Your task to perform on an android device: make emails show in primary in the gmail app Image 0: 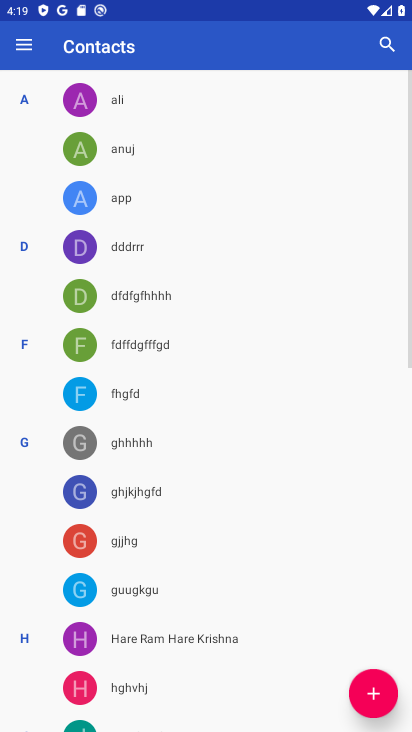
Step 0: press home button
Your task to perform on an android device: make emails show in primary in the gmail app Image 1: 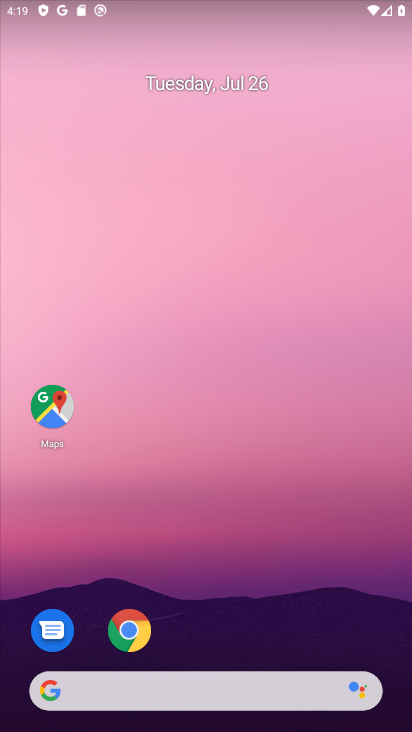
Step 1: drag from (291, 527) to (302, 38)
Your task to perform on an android device: make emails show in primary in the gmail app Image 2: 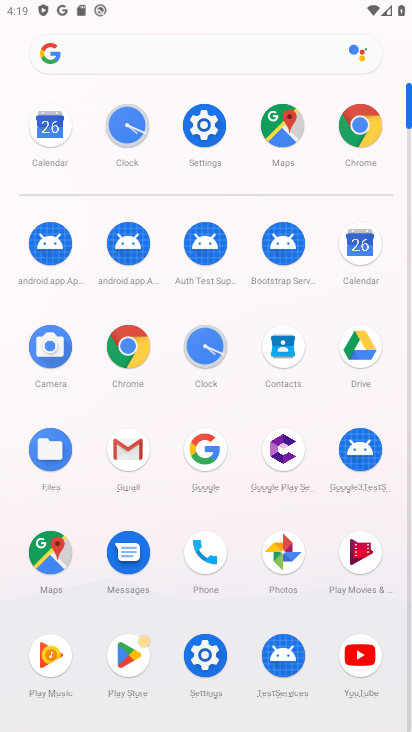
Step 2: click (132, 460)
Your task to perform on an android device: make emails show in primary in the gmail app Image 3: 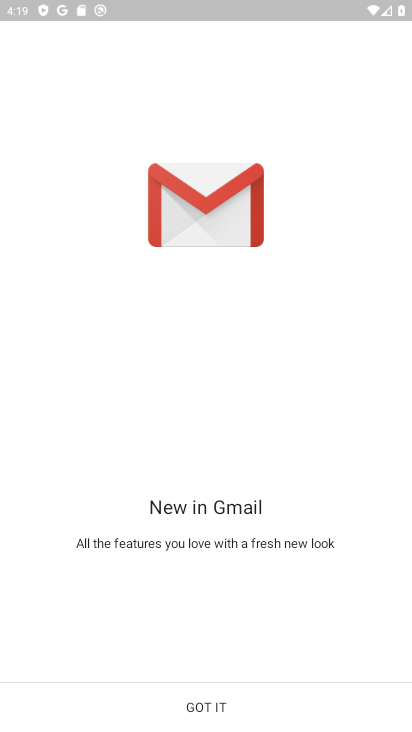
Step 3: click (233, 713)
Your task to perform on an android device: make emails show in primary in the gmail app Image 4: 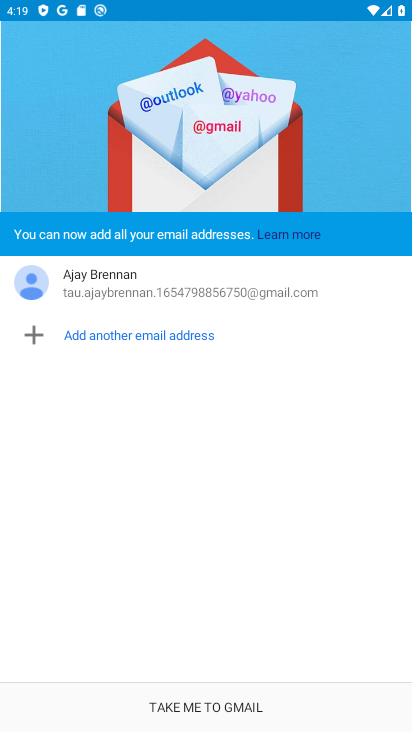
Step 4: click (220, 704)
Your task to perform on an android device: make emails show in primary in the gmail app Image 5: 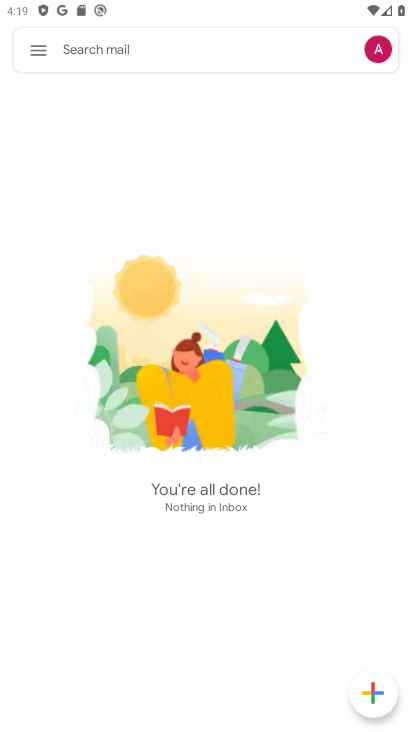
Step 5: click (42, 52)
Your task to perform on an android device: make emails show in primary in the gmail app Image 6: 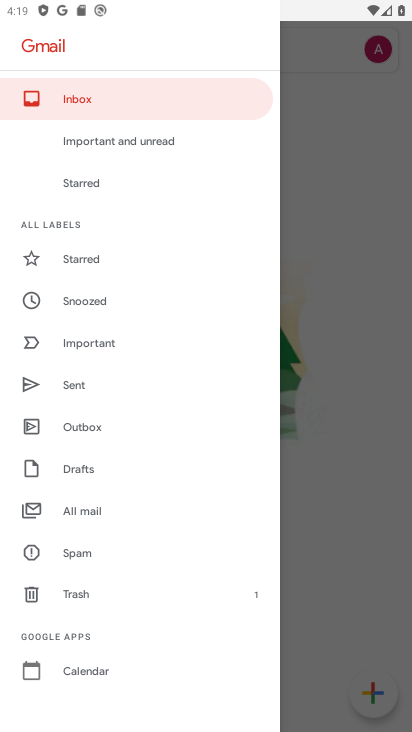
Step 6: drag from (98, 632) to (183, 180)
Your task to perform on an android device: make emails show in primary in the gmail app Image 7: 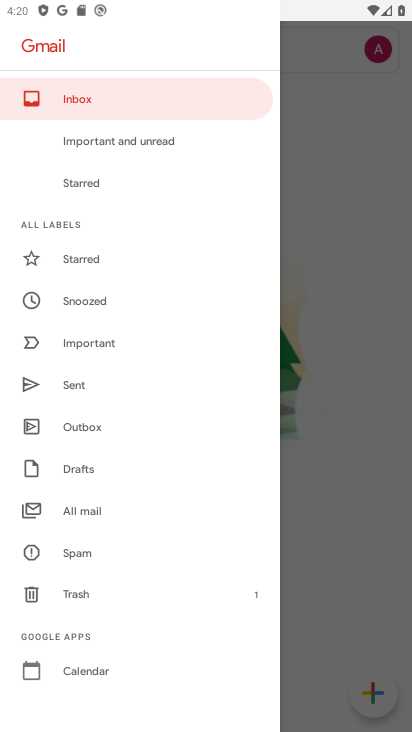
Step 7: drag from (86, 658) to (110, 281)
Your task to perform on an android device: make emails show in primary in the gmail app Image 8: 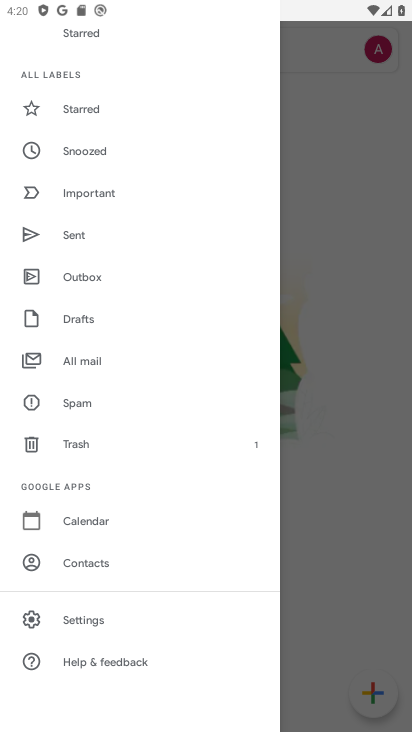
Step 8: click (93, 630)
Your task to perform on an android device: make emails show in primary in the gmail app Image 9: 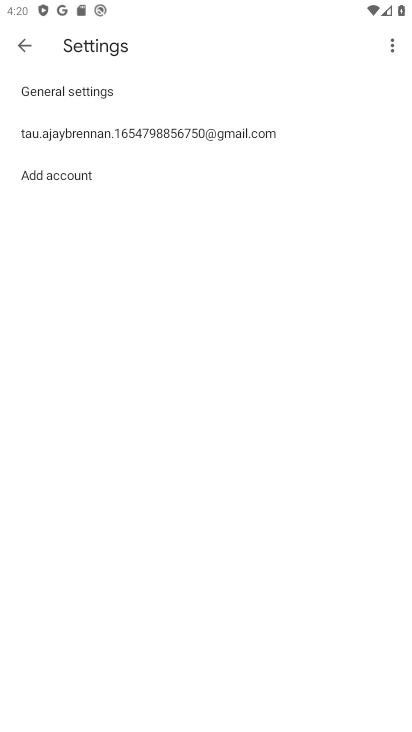
Step 9: click (172, 112)
Your task to perform on an android device: make emails show in primary in the gmail app Image 10: 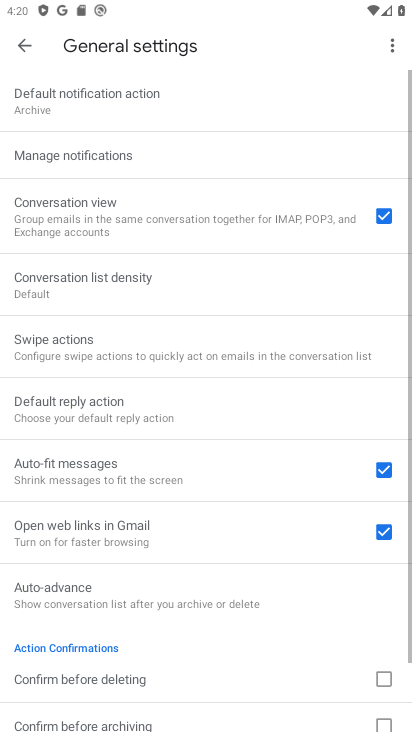
Step 10: click (24, 50)
Your task to perform on an android device: make emails show in primary in the gmail app Image 11: 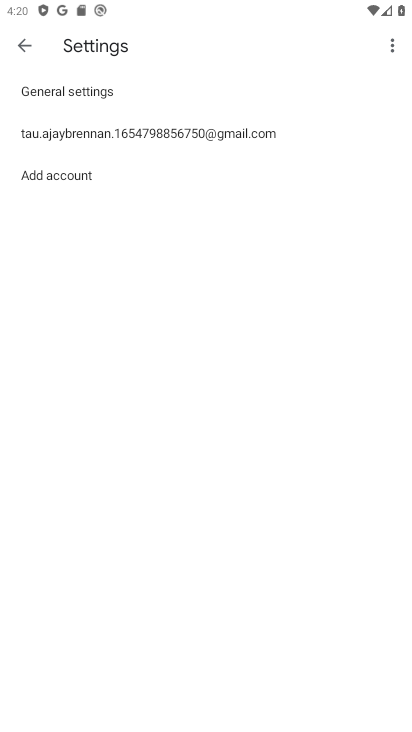
Step 11: click (101, 124)
Your task to perform on an android device: make emails show in primary in the gmail app Image 12: 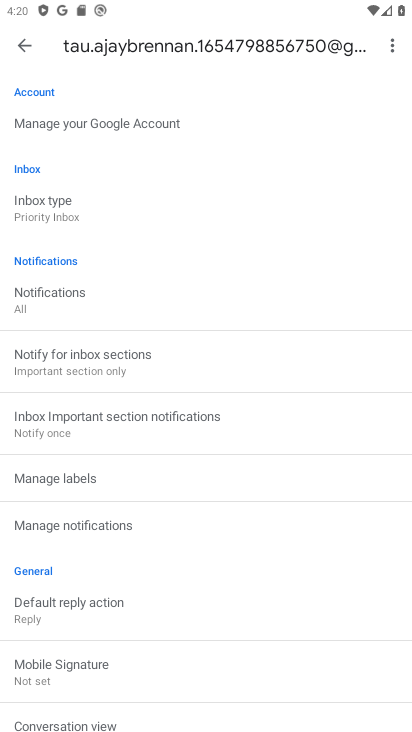
Step 12: click (52, 213)
Your task to perform on an android device: make emails show in primary in the gmail app Image 13: 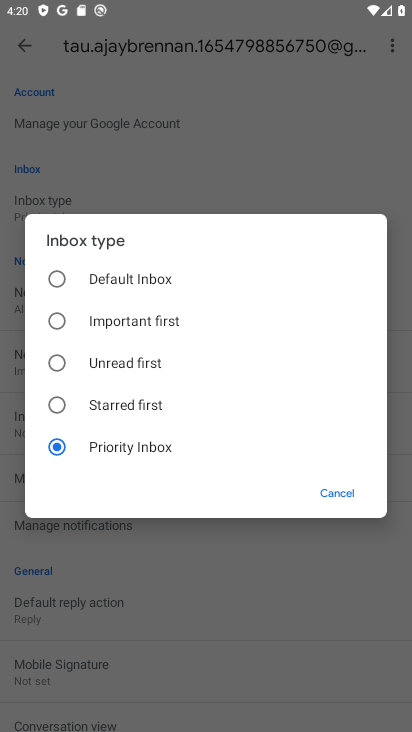
Step 13: click (149, 288)
Your task to perform on an android device: make emails show in primary in the gmail app Image 14: 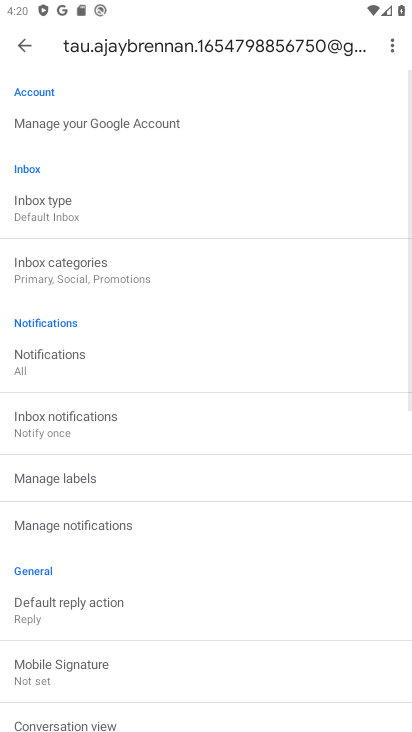
Step 14: click (82, 259)
Your task to perform on an android device: make emails show in primary in the gmail app Image 15: 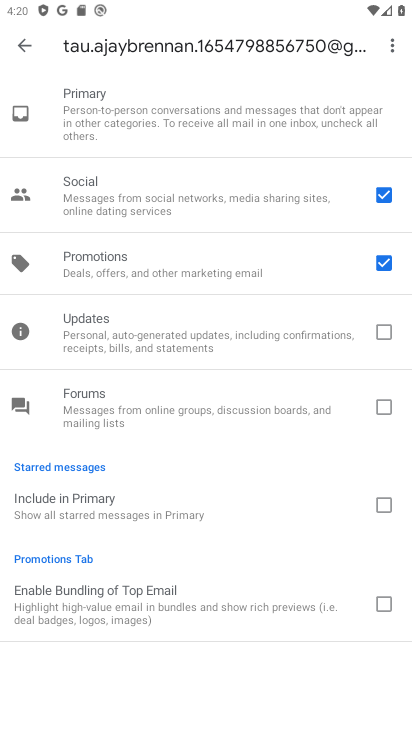
Step 15: task complete